Your task to perform on an android device: Search for pizza restaurants on Maps Image 0: 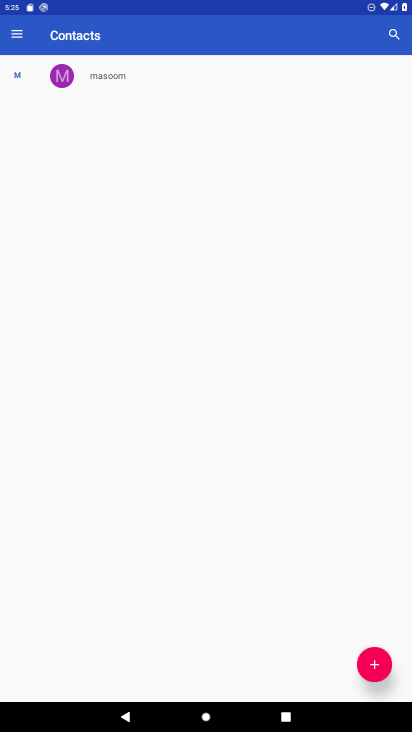
Step 0: press home button
Your task to perform on an android device: Search for pizza restaurants on Maps Image 1: 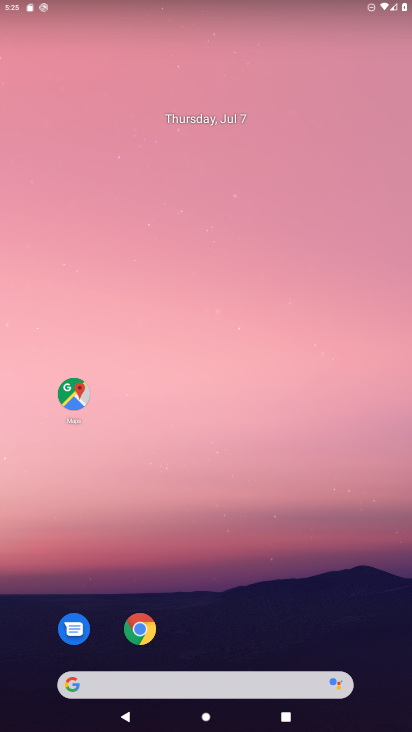
Step 1: drag from (261, 560) to (317, 131)
Your task to perform on an android device: Search for pizza restaurants on Maps Image 2: 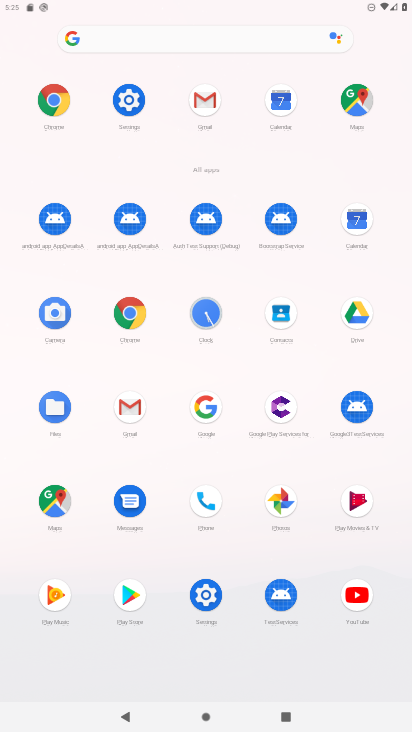
Step 2: click (353, 97)
Your task to perform on an android device: Search for pizza restaurants on Maps Image 3: 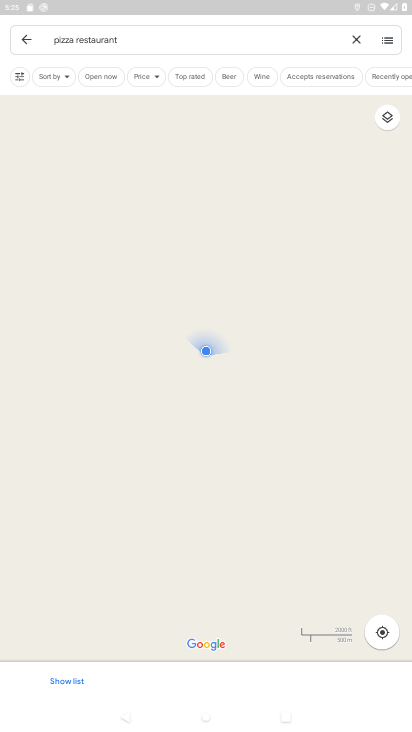
Step 3: click (138, 41)
Your task to perform on an android device: Search for pizza restaurants on Maps Image 4: 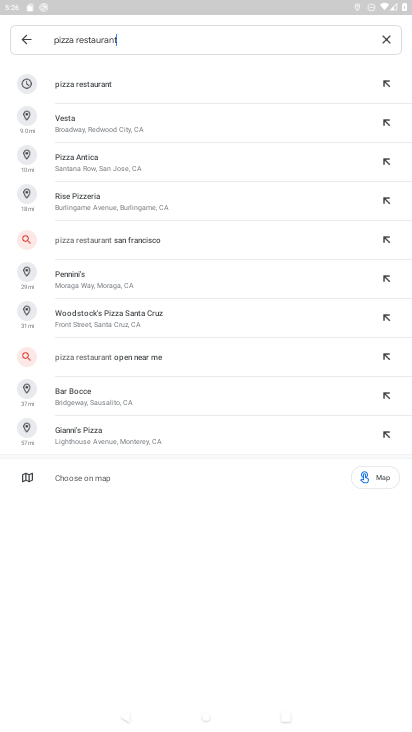
Step 4: click (97, 32)
Your task to perform on an android device: Search for pizza restaurants on Maps Image 5: 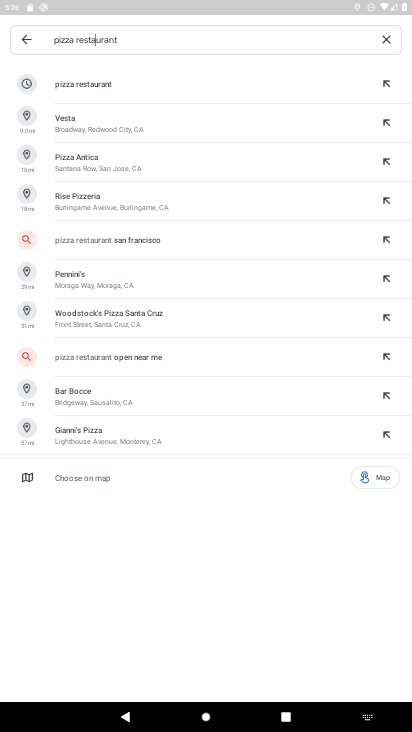
Step 5: type " pizza restaurants"
Your task to perform on an android device: Search for pizza restaurants on Maps Image 6: 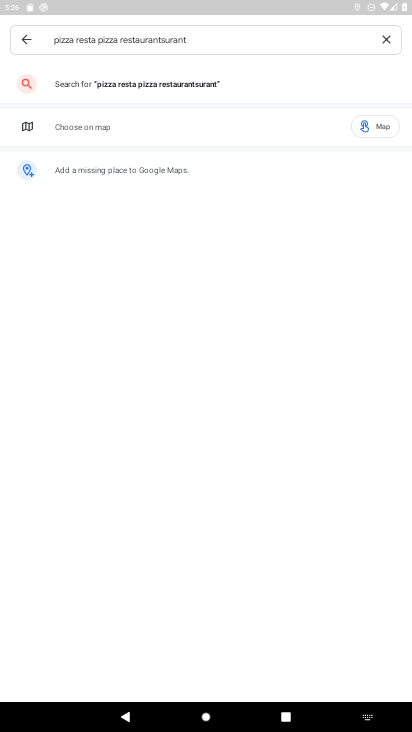
Step 6: type ""
Your task to perform on an android device: Search for pizza restaurants on Maps Image 7: 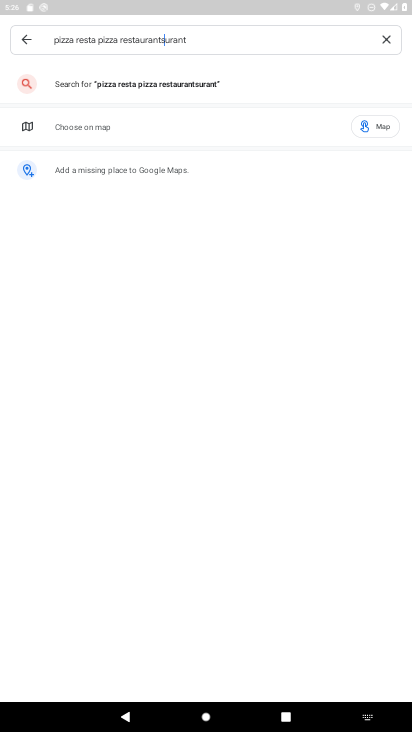
Step 7: click (102, 80)
Your task to perform on an android device: Search for pizza restaurants on Maps Image 8: 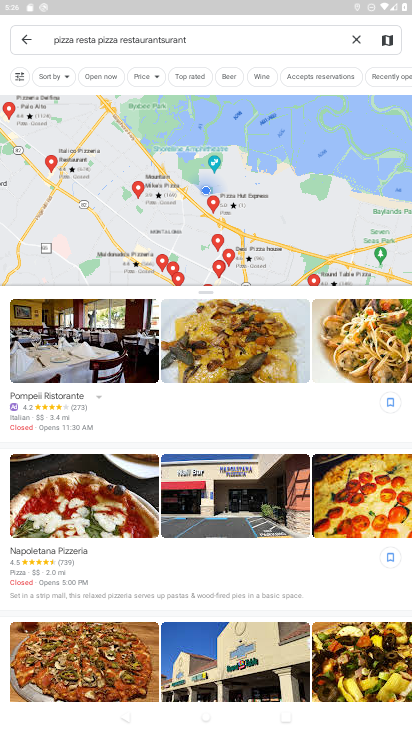
Step 8: task complete